Your task to perform on an android device: turn on the 12-hour format for clock Image 0: 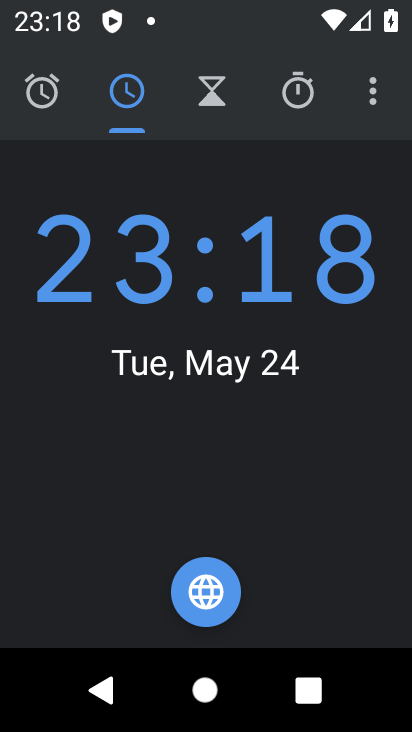
Step 0: drag from (369, 85) to (300, 165)
Your task to perform on an android device: turn on the 12-hour format for clock Image 1: 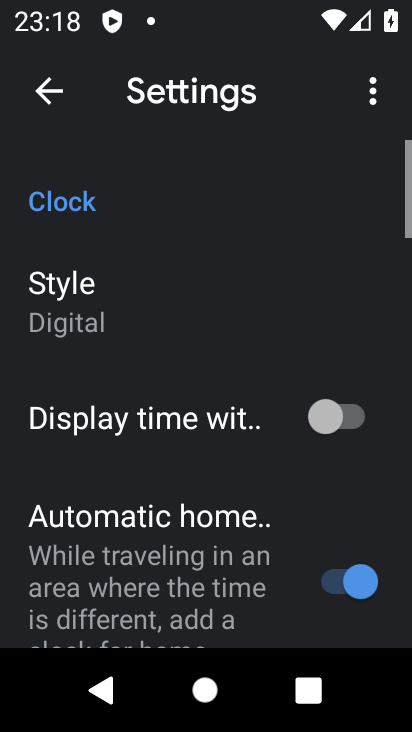
Step 1: drag from (175, 554) to (222, 124)
Your task to perform on an android device: turn on the 12-hour format for clock Image 2: 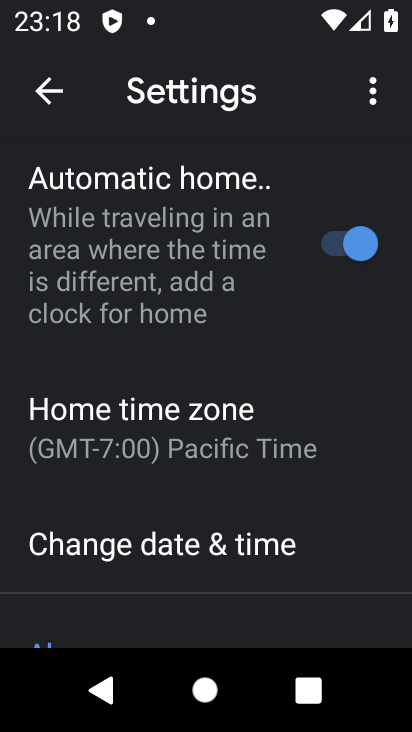
Step 2: drag from (194, 591) to (197, 242)
Your task to perform on an android device: turn on the 12-hour format for clock Image 3: 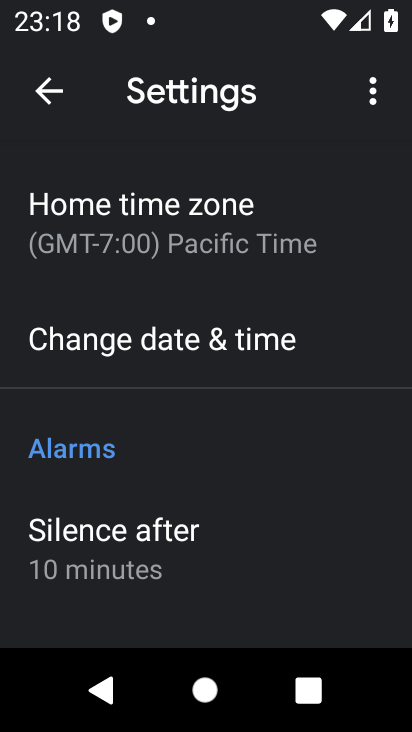
Step 3: click (171, 351)
Your task to perform on an android device: turn on the 12-hour format for clock Image 4: 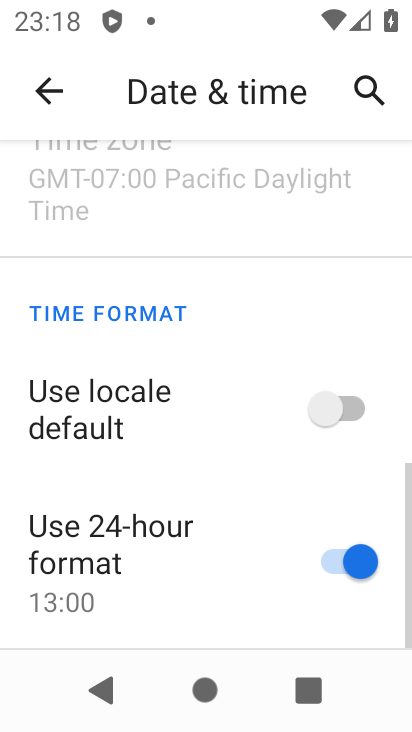
Step 4: drag from (191, 462) to (220, 171)
Your task to perform on an android device: turn on the 12-hour format for clock Image 5: 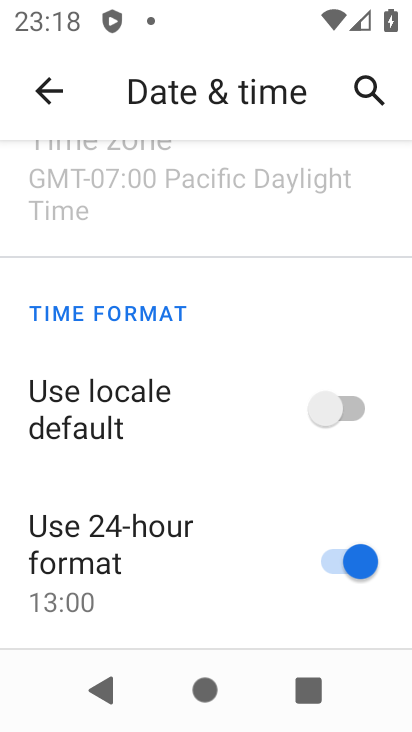
Step 5: click (352, 553)
Your task to perform on an android device: turn on the 12-hour format for clock Image 6: 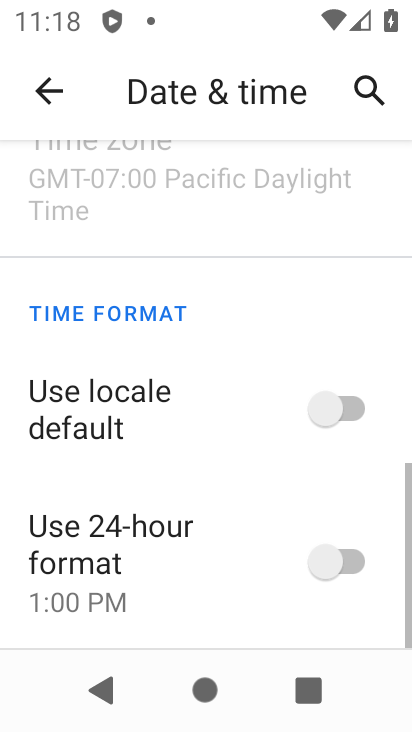
Step 6: click (333, 404)
Your task to perform on an android device: turn on the 12-hour format for clock Image 7: 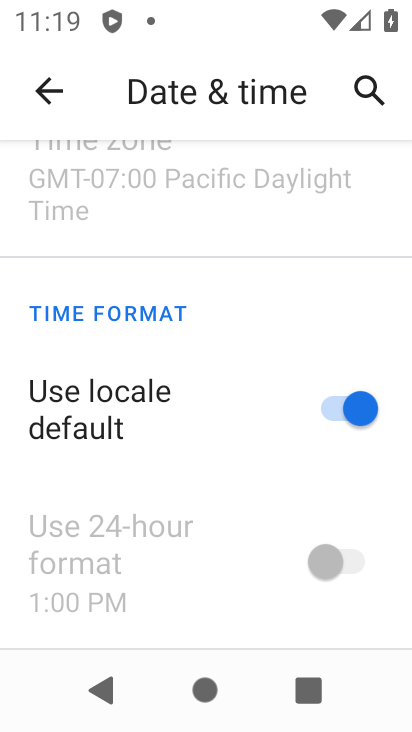
Step 7: task complete